Your task to perform on an android device: Open the calendar app Image 0: 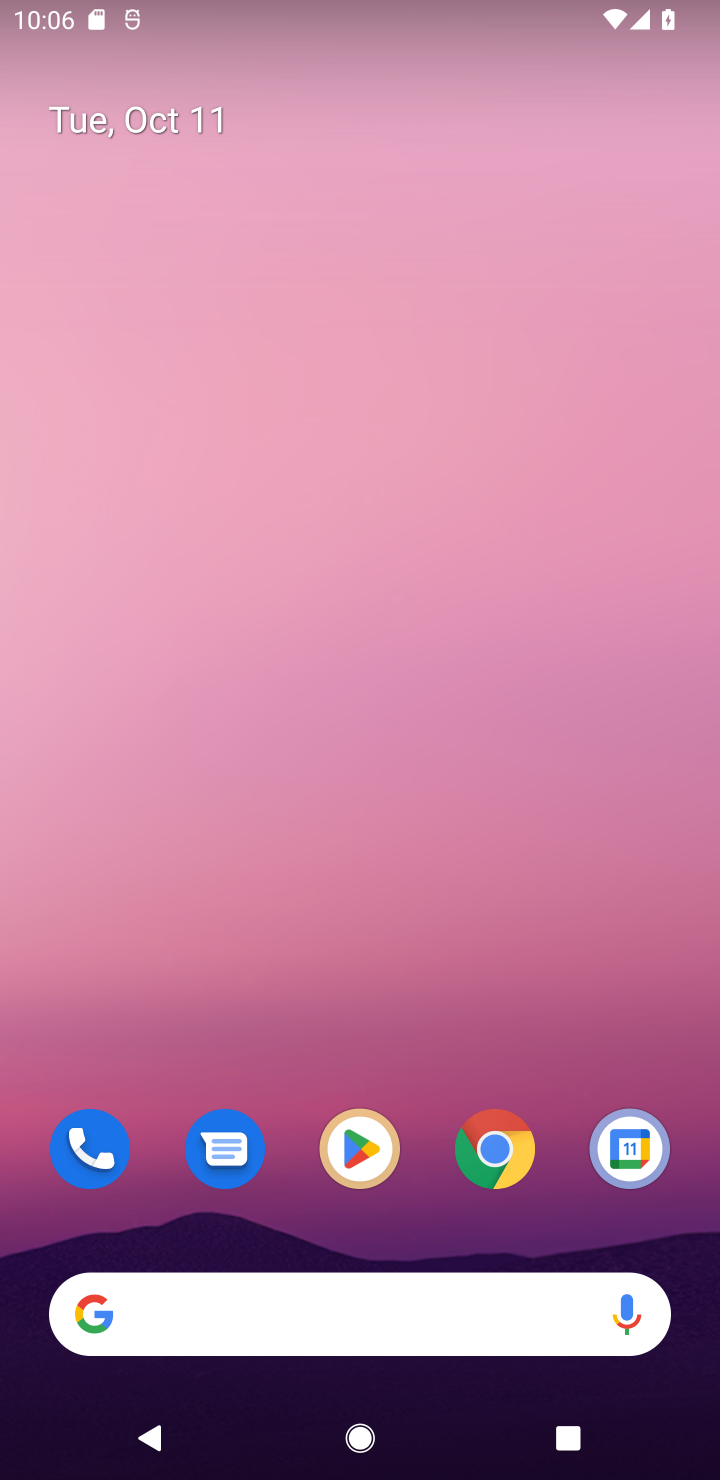
Step 0: drag from (381, 758) to (371, 92)
Your task to perform on an android device: Open the calendar app Image 1: 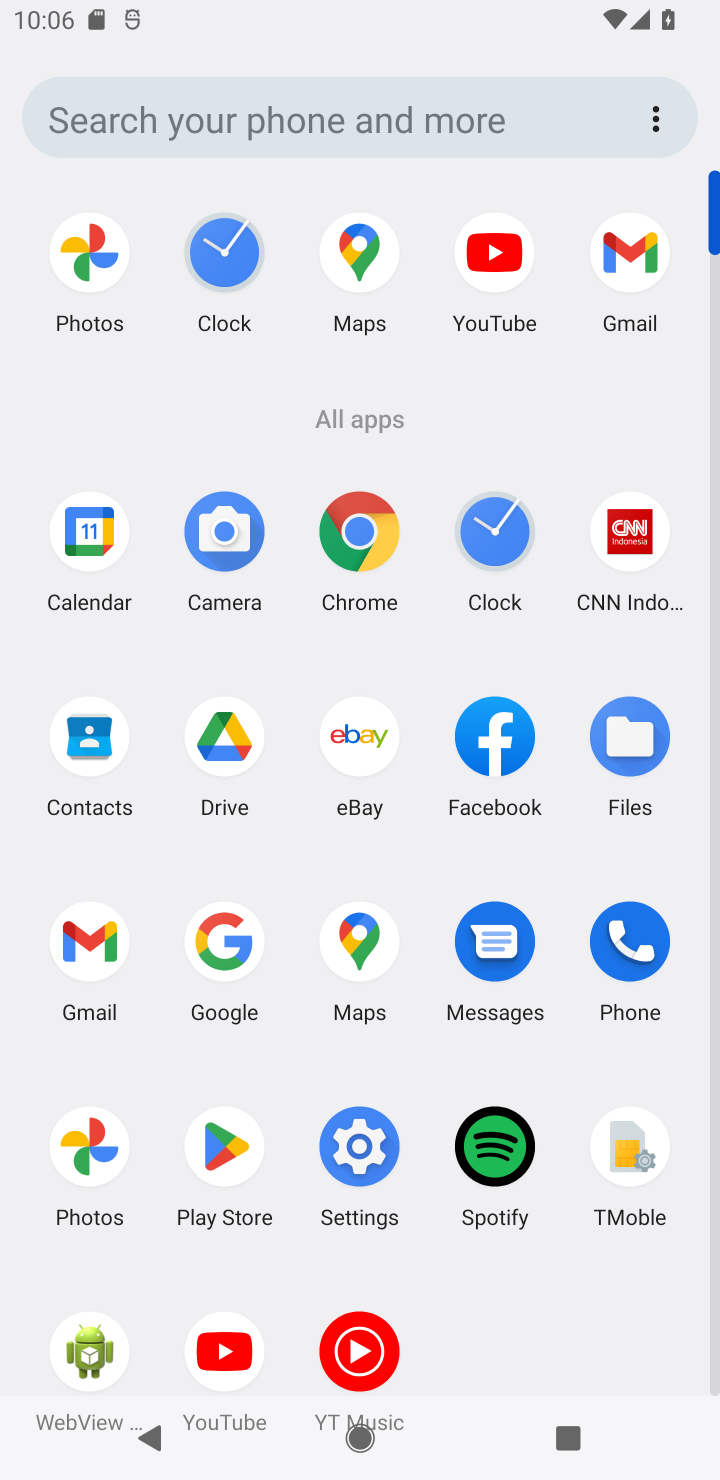
Step 1: click (80, 547)
Your task to perform on an android device: Open the calendar app Image 2: 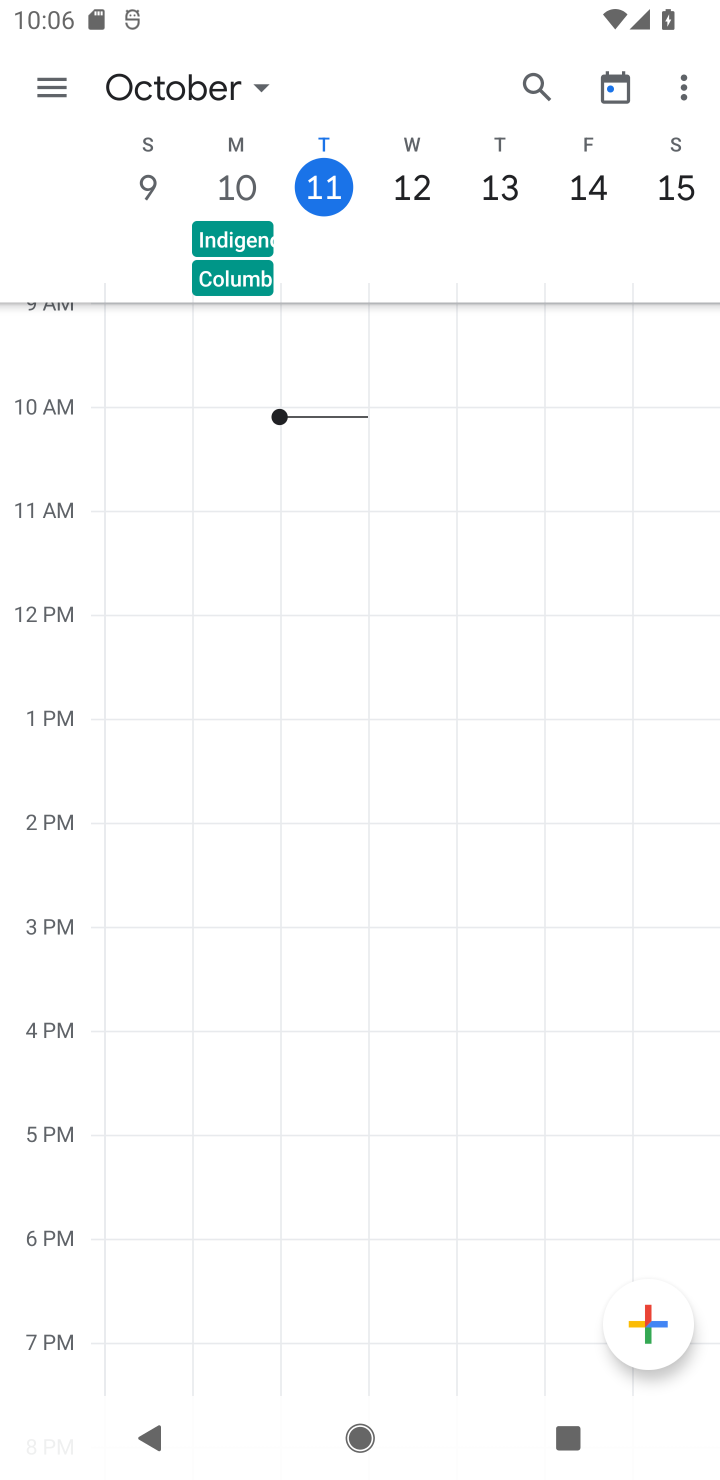
Step 2: task complete